Your task to perform on an android device: Show the shopping cart on ebay.com. Search for "energizer triple a" on ebay.com, select the first entry, and add it to the cart. Image 0: 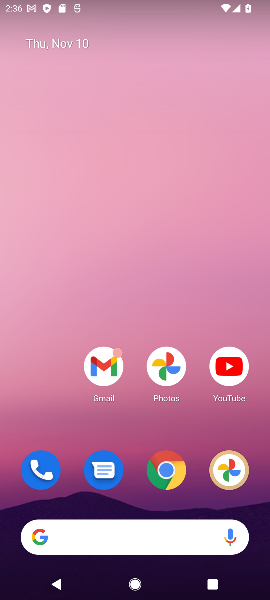
Step 0: click (167, 475)
Your task to perform on an android device: Show the shopping cart on ebay.com. Search for "energizer triple a" on ebay.com, select the first entry, and add it to the cart. Image 1: 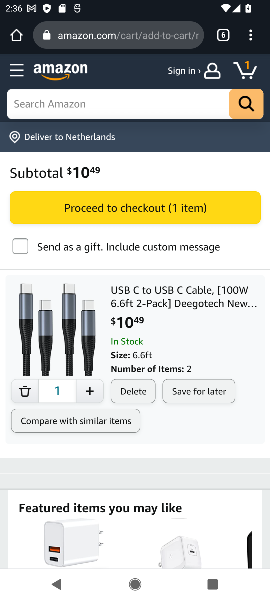
Step 1: click (221, 39)
Your task to perform on an android device: Show the shopping cart on ebay.com. Search for "energizer triple a" on ebay.com, select the first entry, and add it to the cart. Image 2: 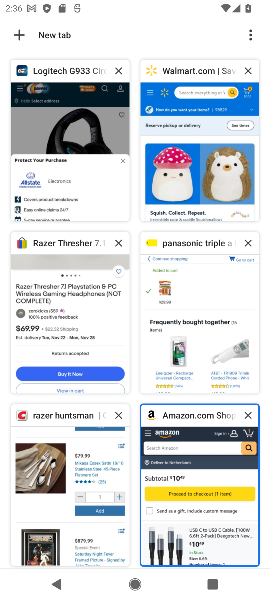
Step 2: click (69, 293)
Your task to perform on an android device: Show the shopping cart on ebay.com. Search for "energizer triple a" on ebay.com, select the first entry, and add it to the cart. Image 3: 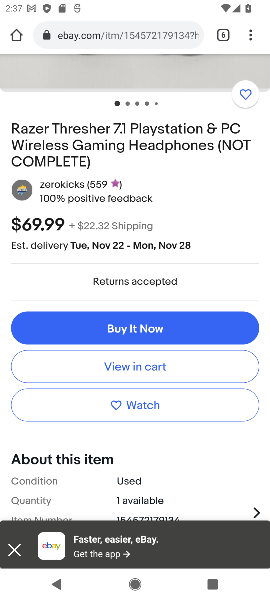
Step 3: click (157, 358)
Your task to perform on an android device: Show the shopping cart on ebay.com. Search for "energizer triple a" on ebay.com, select the first entry, and add it to the cart. Image 4: 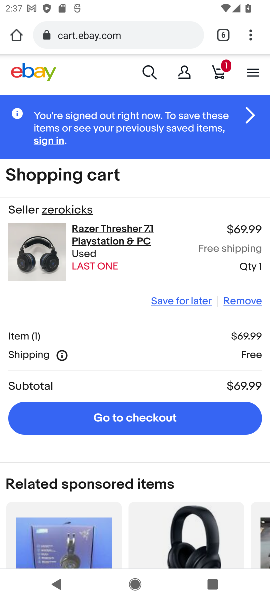
Step 4: click (238, 302)
Your task to perform on an android device: Show the shopping cart on ebay.com. Search for "energizer triple a" on ebay.com, select the first entry, and add it to the cart. Image 5: 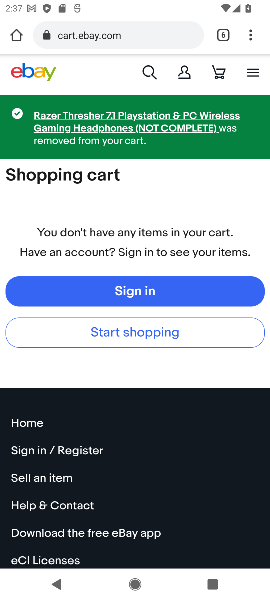
Step 5: click (148, 69)
Your task to perform on an android device: Show the shopping cart on ebay.com. Search for "energizer triple a" on ebay.com, select the first entry, and add it to the cart. Image 6: 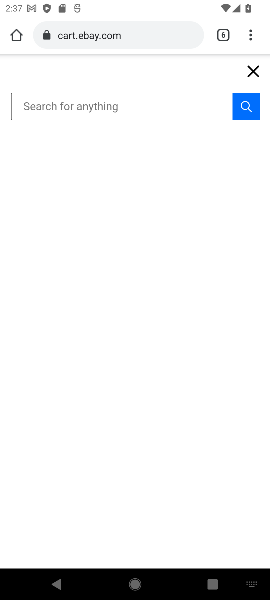
Step 6: type "energizer triple a"
Your task to perform on an android device: Show the shopping cart on ebay.com. Search for "energizer triple a" on ebay.com, select the first entry, and add it to the cart. Image 7: 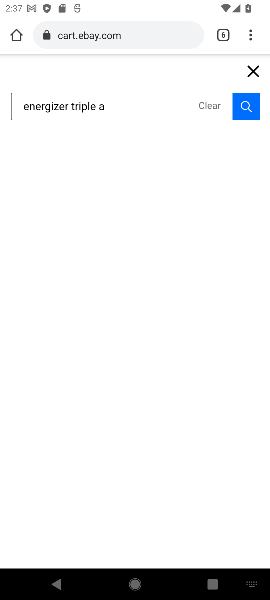
Step 7: click (248, 106)
Your task to perform on an android device: Show the shopping cart on ebay.com. Search for "energizer triple a" on ebay.com, select the first entry, and add it to the cart. Image 8: 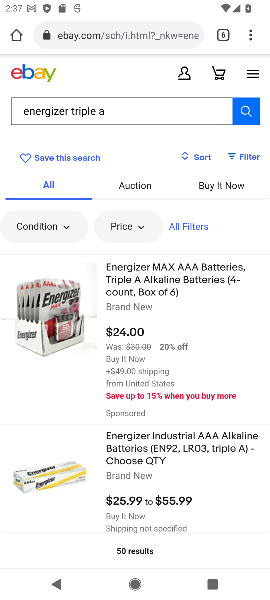
Step 8: click (138, 278)
Your task to perform on an android device: Show the shopping cart on ebay.com. Search for "energizer triple a" on ebay.com, select the first entry, and add it to the cart. Image 9: 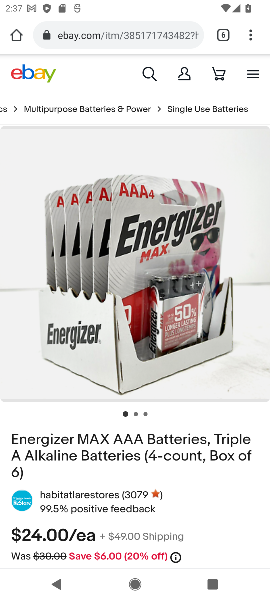
Step 9: drag from (138, 476) to (171, 152)
Your task to perform on an android device: Show the shopping cart on ebay.com. Search for "energizer triple a" on ebay.com, select the first entry, and add it to the cart. Image 10: 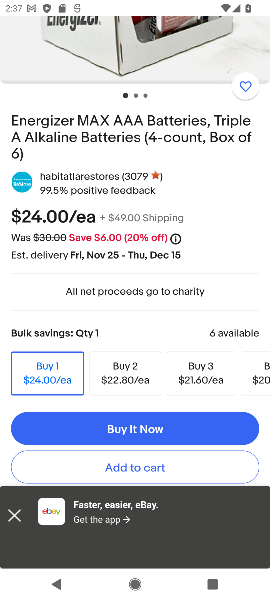
Step 10: drag from (188, 335) to (200, 79)
Your task to perform on an android device: Show the shopping cart on ebay.com. Search for "energizer triple a" on ebay.com, select the first entry, and add it to the cart. Image 11: 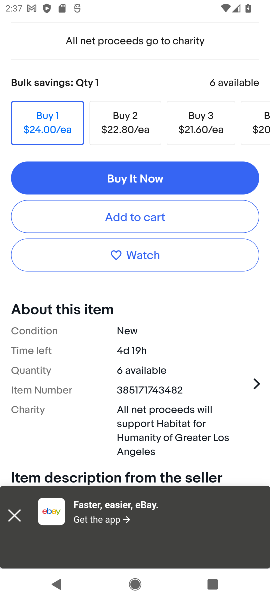
Step 11: click (141, 212)
Your task to perform on an android device: Show the shopping cart on ebay.com. Search for "energizer triple a" on ebay.com, select the first entry, and add it to the cart. Image 12: 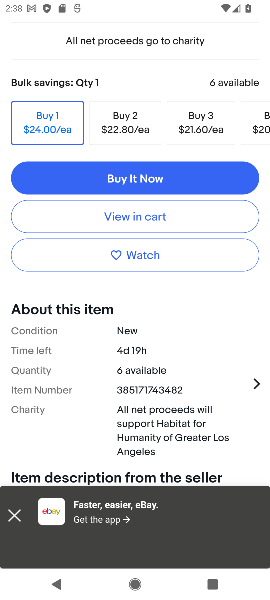
Step 12: task complete